Your task to perform on an android device: What is the news today? Image 0: 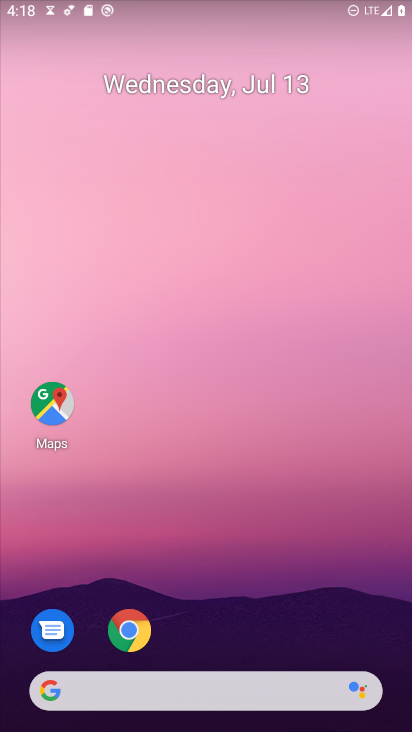
Step 0: press home button
Your task to perform on an android device: What is the news today? Image 1: 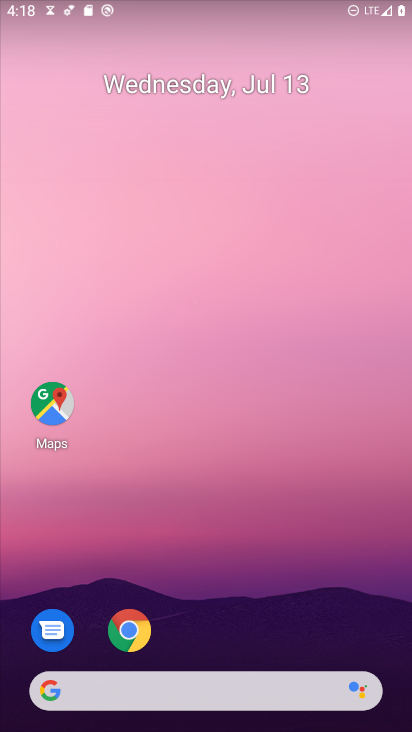
Step 1: click (245, 688)
Your task to perform on an android device: What is the news today? Image 2: 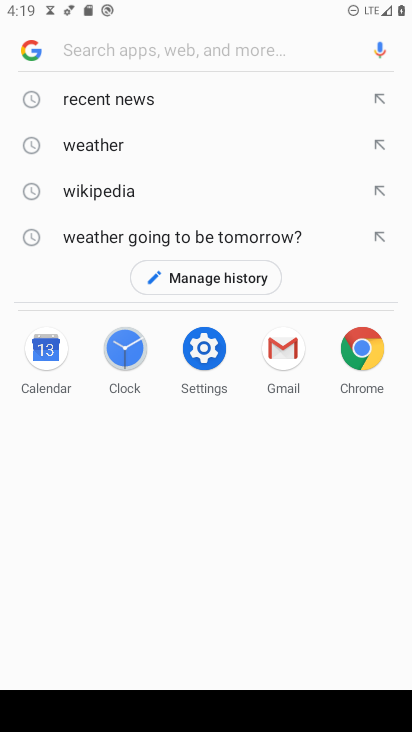
Step 2: type "news today"
Your task to perform on an android device: What is the news today? Image 3: 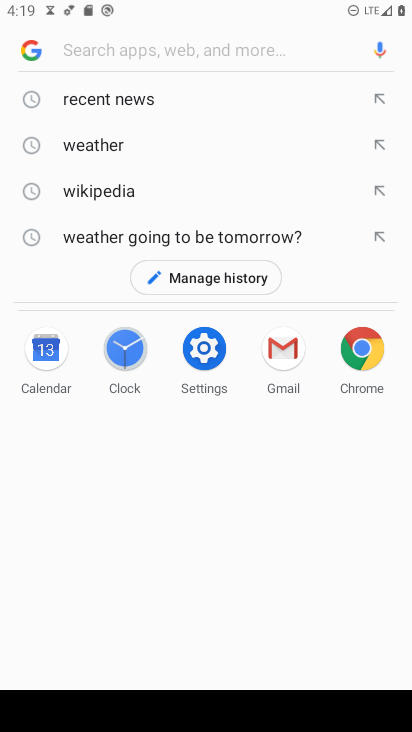
Step 3: click (95, 48)
Your task to perform on an android device: What is the news today? Image 4: 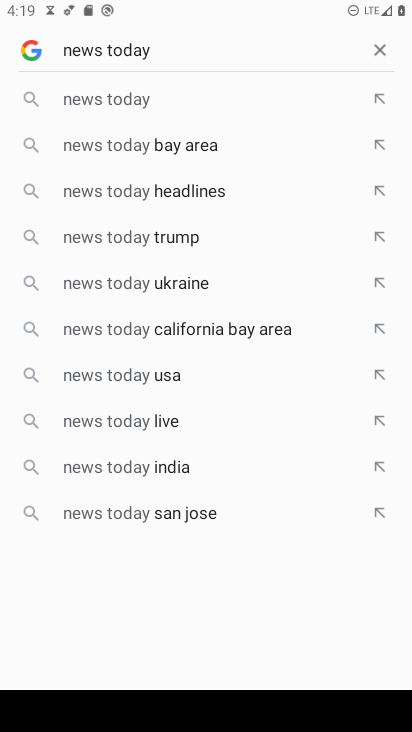
Step 4: press enter
Your task to perform on an android device: What is the news today? Image 5: 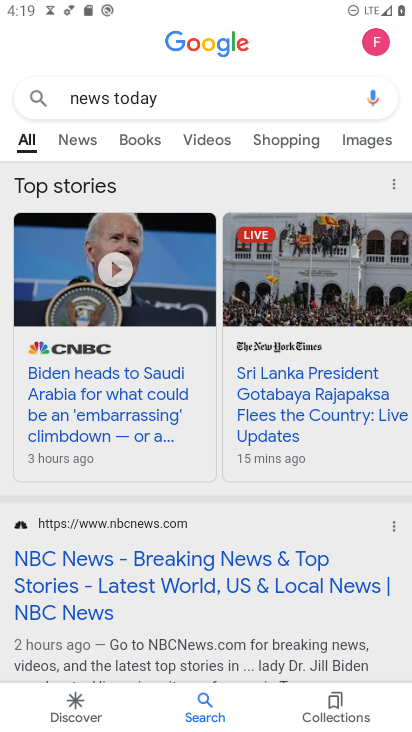
Step 5: task complete